Your task to perform on an android device: open app "File Manager" Image 0: 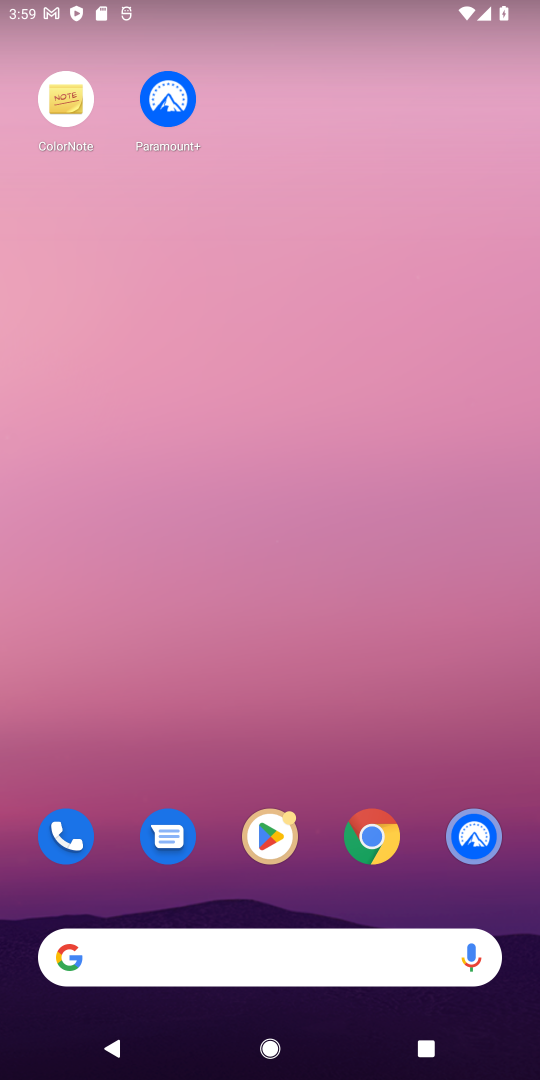
Step 0: drag from (224, 873) to (217, 309)
Your task to perform on an android device: open app "File Manager" Image 1: 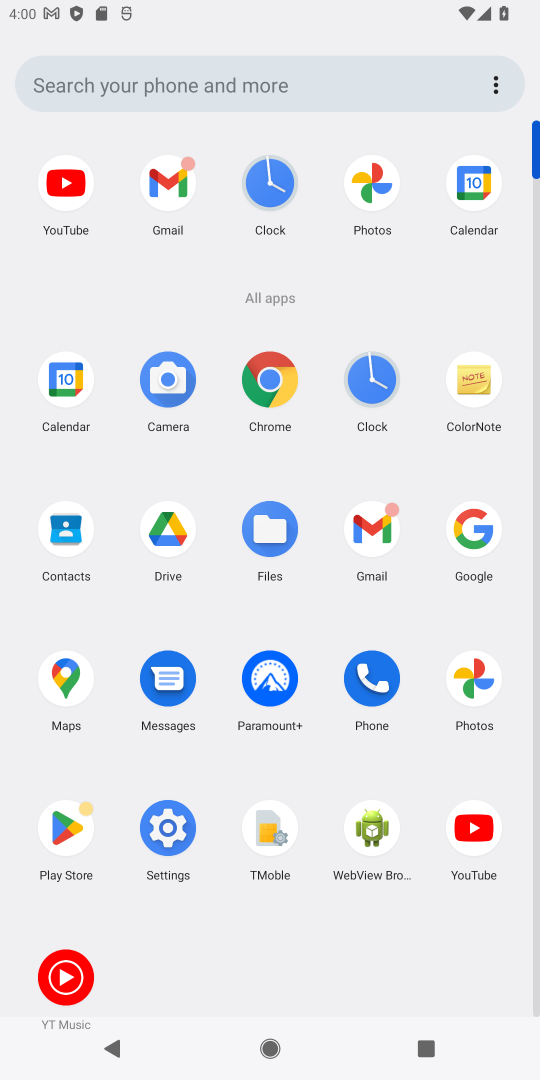
Step 1: click (69, 823)
Your task to perform on an android device: open app "File Manager" Image 2: 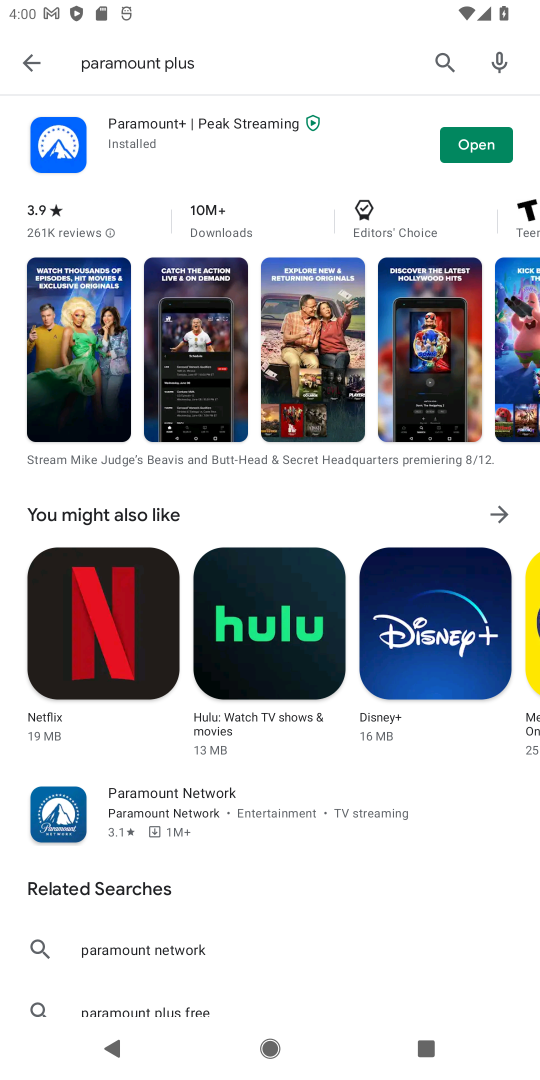
Step 2: click (31, 59)
Your task to perform on an android device: open app "File Manager" Image 3: 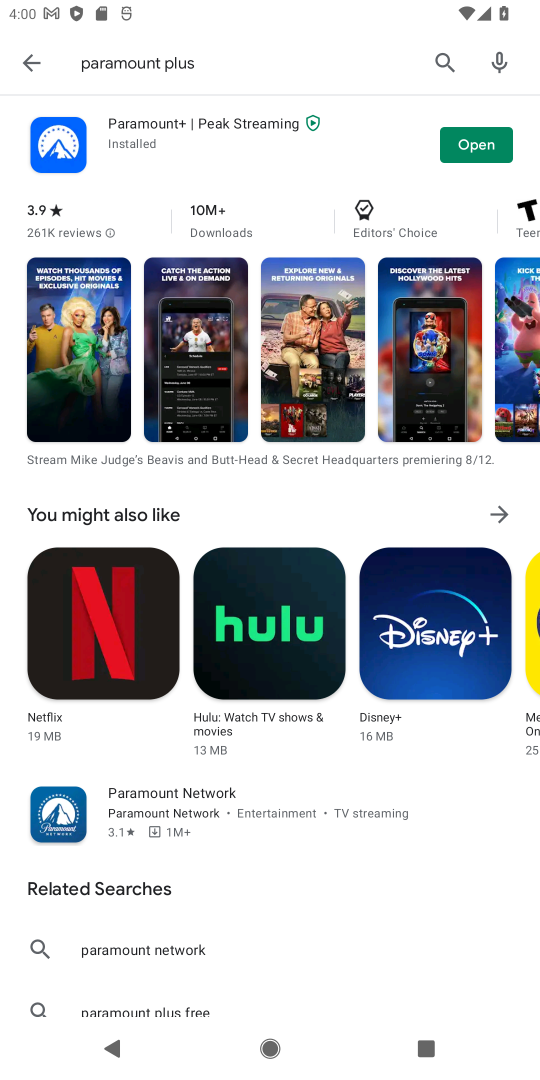
Step 3: click (36, 66)
Your task to perform on an android device: open app "File Manager" Image 4: 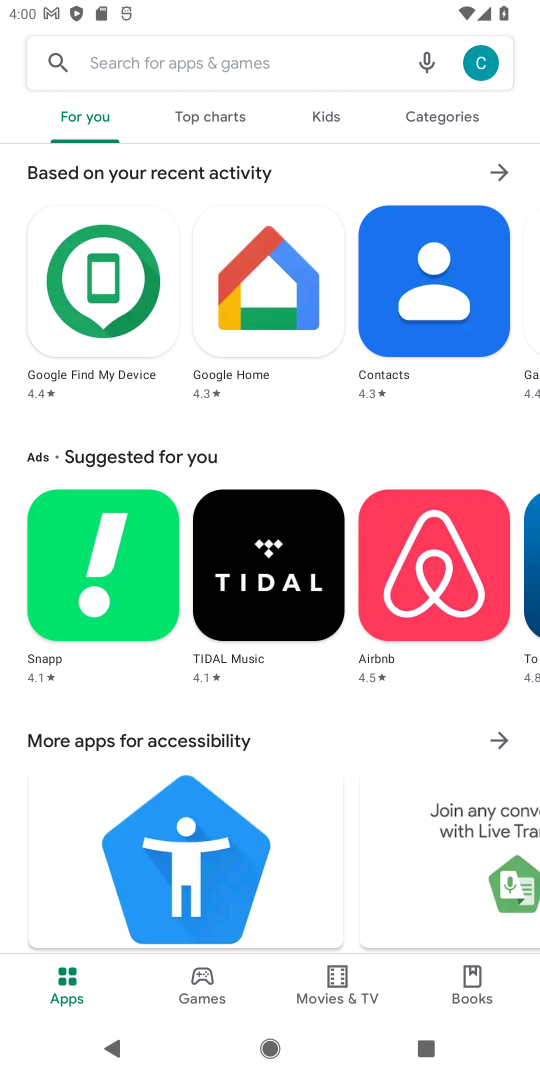
Step 4: click (238, 56)
Your task to perform on an android device: open app "File Manager" Image 5: 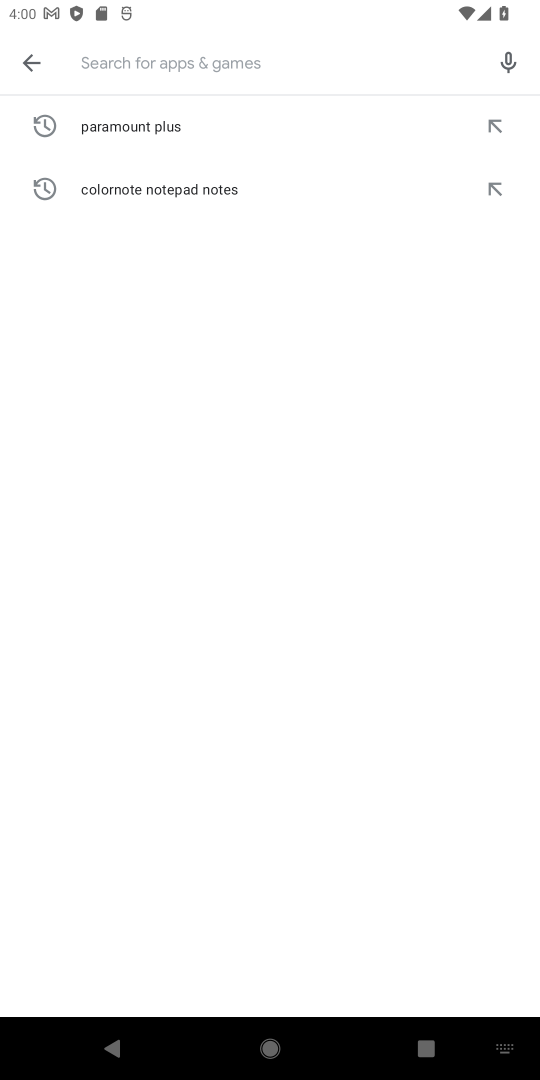
Step 5: type "File Manager "
Your task to perform on an android device: open app "File Manager" Image 6: 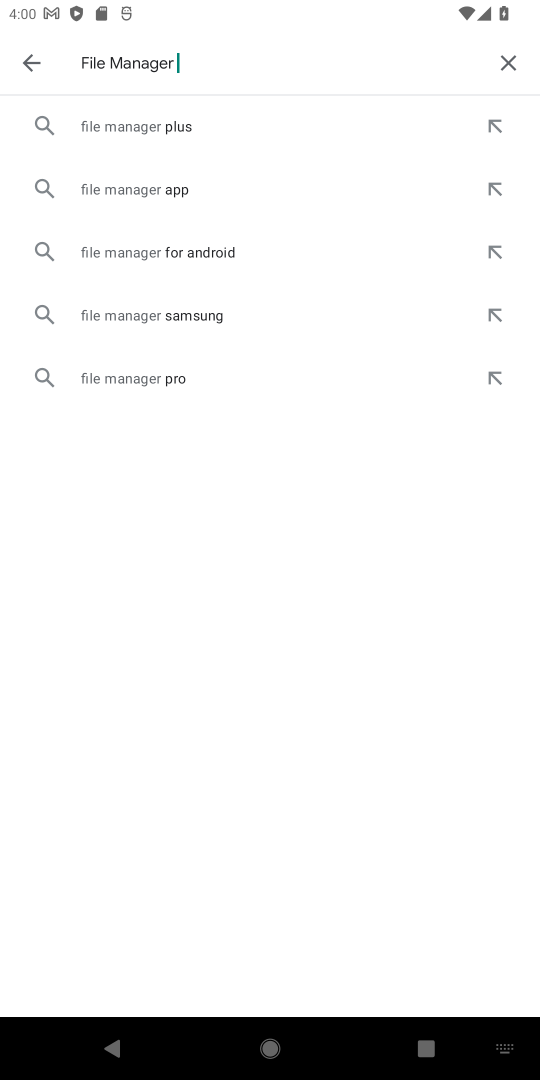
Step 6: click (170, 188)
Your task to perform on an android device: open app "File Manager" Image 7: 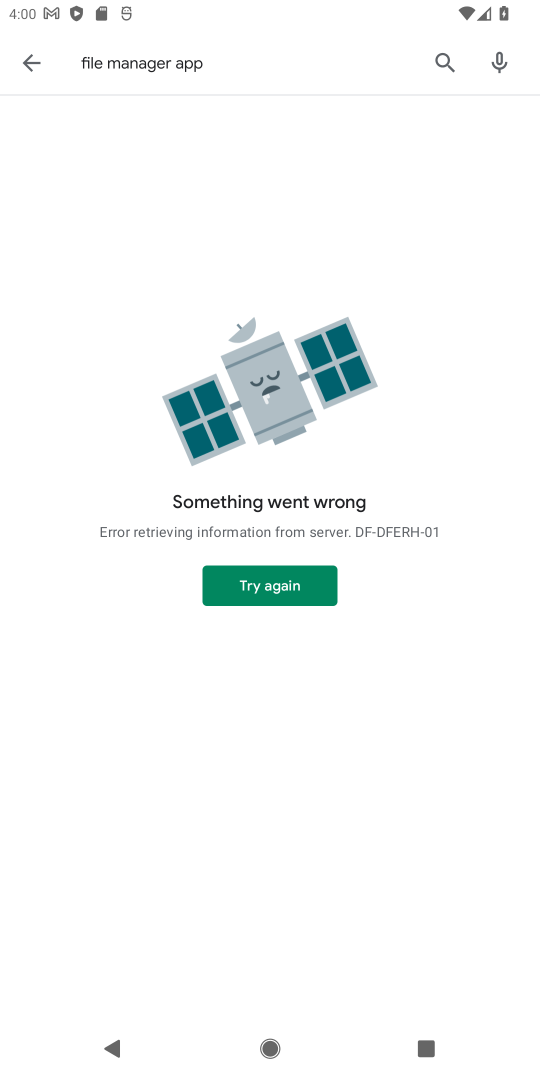
Step 7: task complete